Your task to perform on an android device: Turn off the flashlight Image 0: 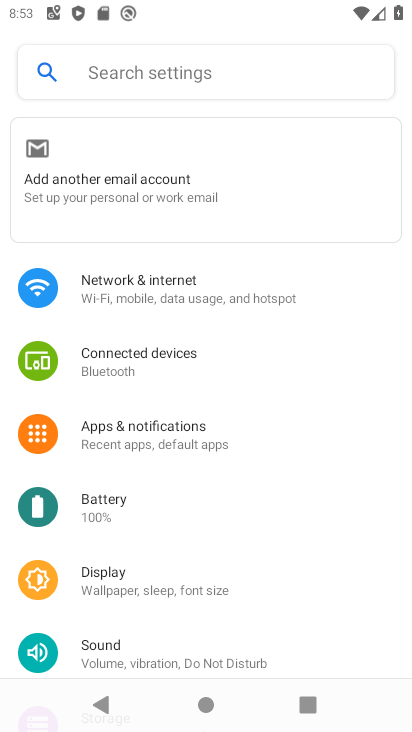
Step 0: drag from (216, 634) to (185, 209)
Your task to perform on an android device: Turn off the flashlight Image 1: 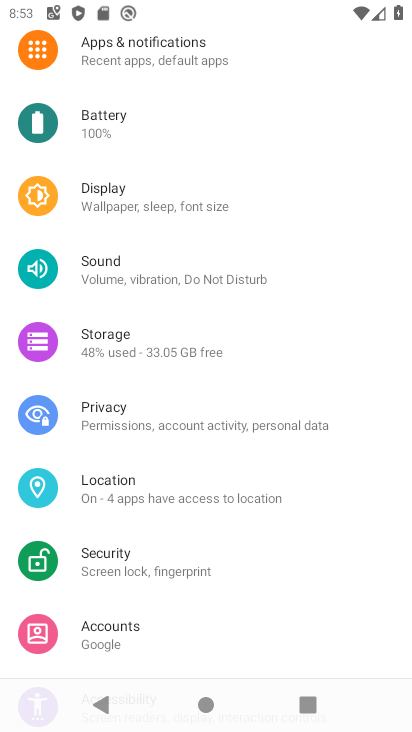
Step 1: task complete